Your task to perform on an android device: turn off smart reply in the gmail app Image 0: 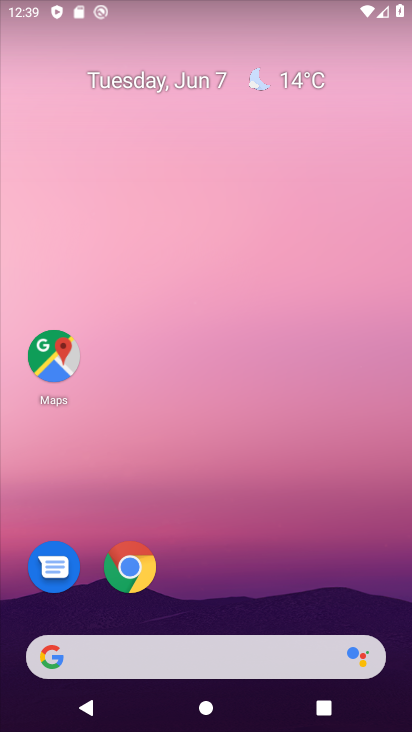
Step 0: drag from (253, 597) to (234, 21)
Your task to perform on an android device: turn off smart reply in the gmail app Image 1: 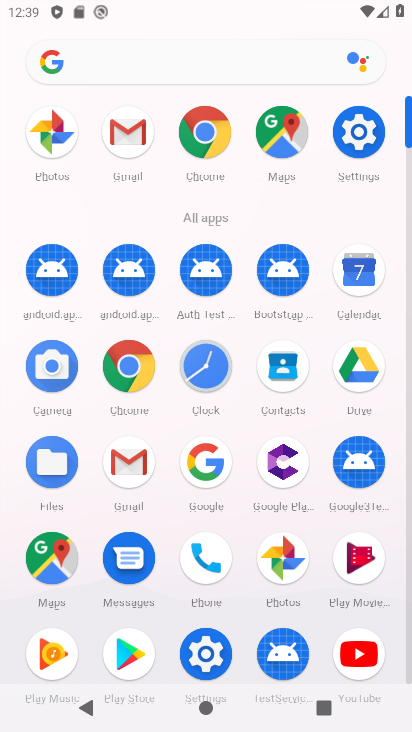
Step 1: click (118, 466)
Your task to perform on an android device: turn off smart reply in the gmail app Image 2: 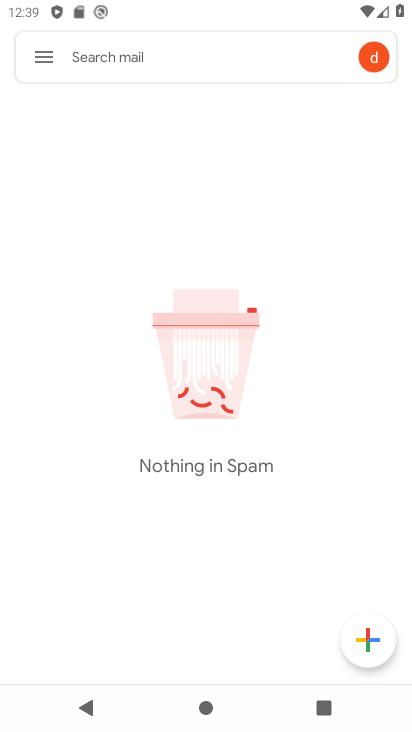
Step 2: click (45, 62)
Your task to perform on an android device: turn off smart reply in the gmail app Image 3: 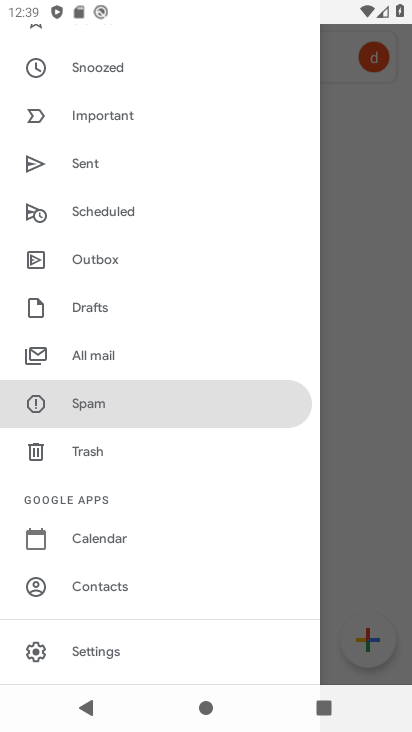
Step 3: click (78, 644)
Your task to perform on an android device: turn off smart reply in the gmail app Image 4: 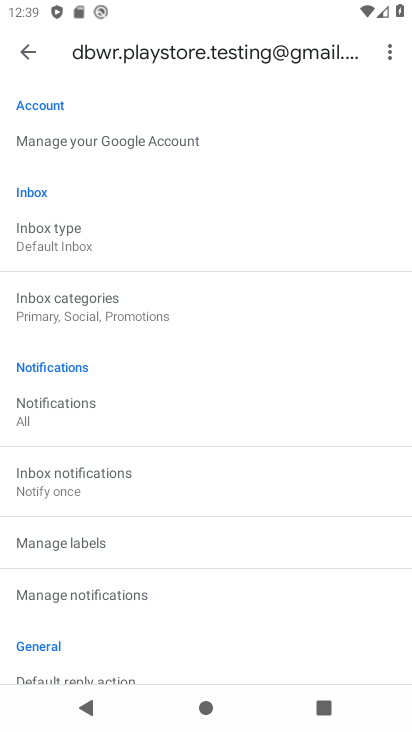
Step 4: drag from (100, 636) to (184, 26)
Your task to perform on an android device: turn off smart reply in the gmail app Image 5: 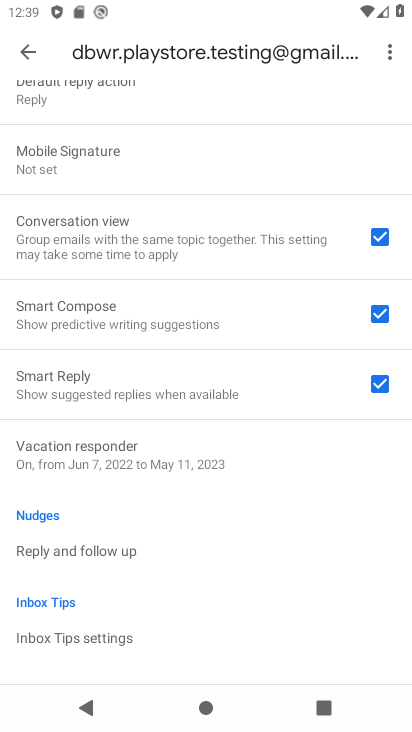
Step 5: click (387, 383)
Your task to perform on an android device: turn off smart reply in the gmail app Image 6: 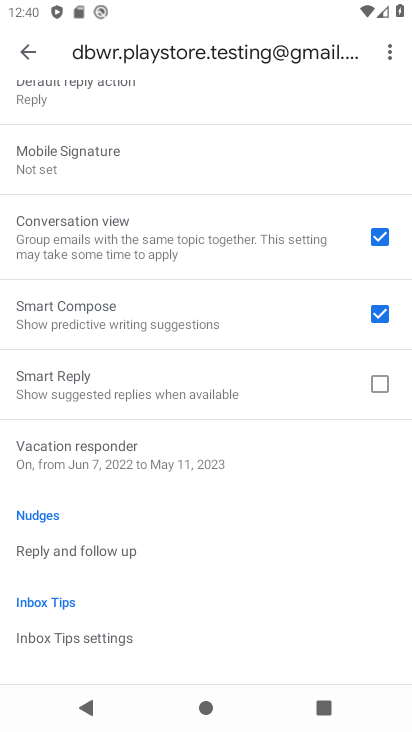
Step 6: task complete